Your task to perform on an android device: set the timer Image 0: 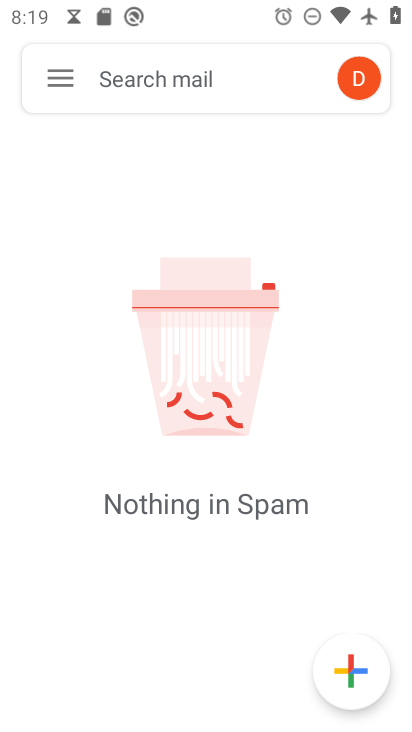
Step 0: press home button
Your task to perform on an android device: set the timer Image 1: 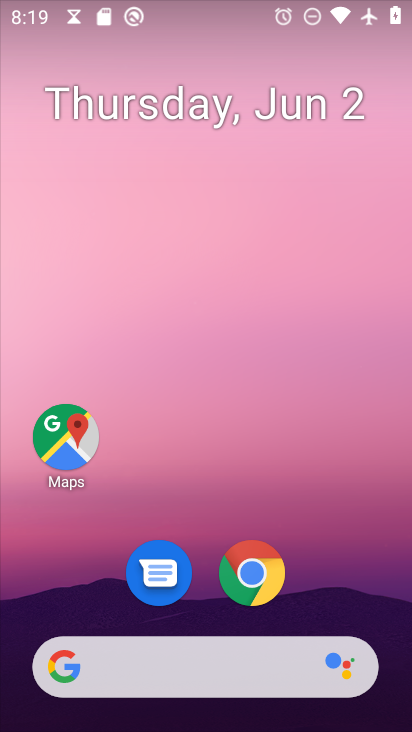
Step 1: drag from (223, 624) to (338, 47)
Your task to perform on an android device: set the timer Image 2: 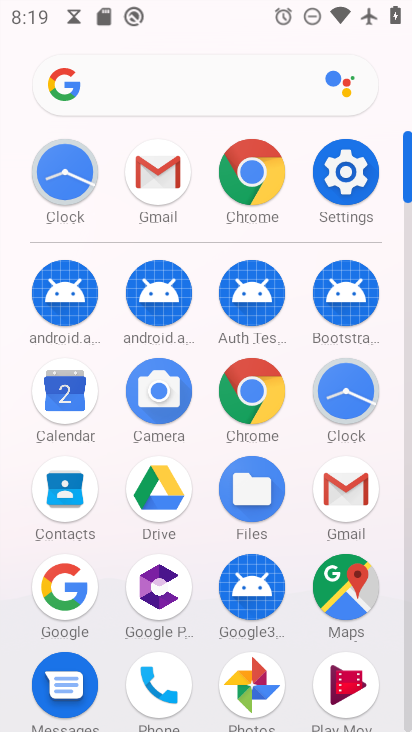
Step 2: click (341, 389)
Your task to perform on an android device: set the timer Image 3: 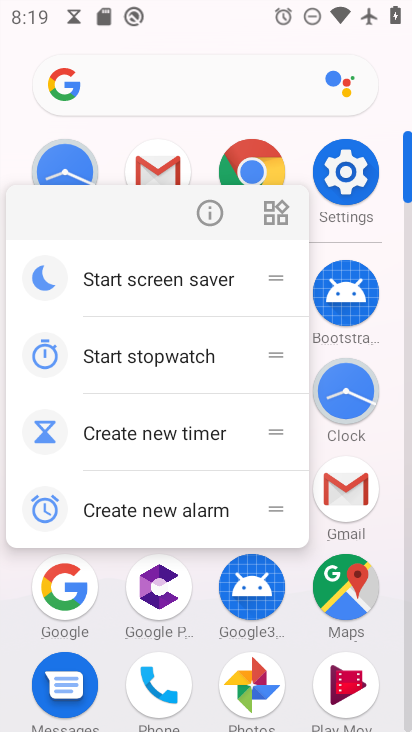
Step 3: click (348, 396)
Your task to perform on an android device: set the timer Image 4: 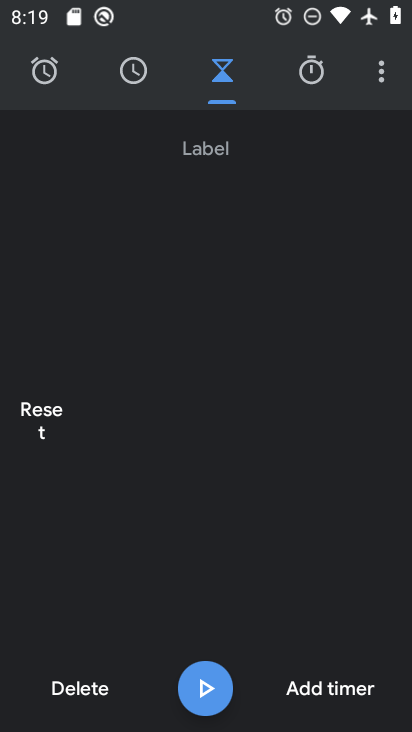
Step 4: click (75, 685)
Your task to perform on an android device: set the timer Image 5: 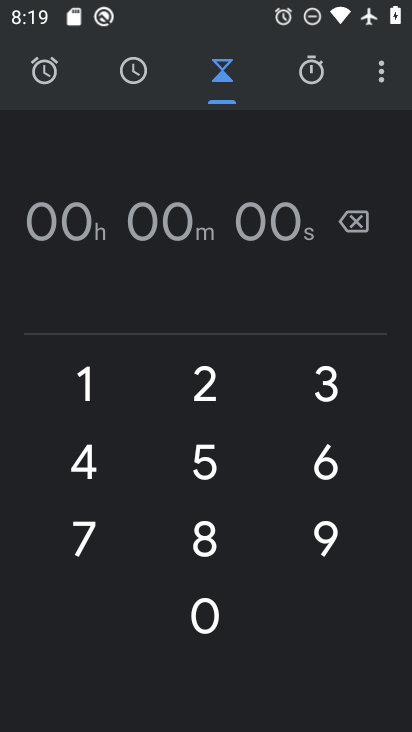
Step 5: click (84, 385)
Your task to perform on an android device: set the timer Image 6: 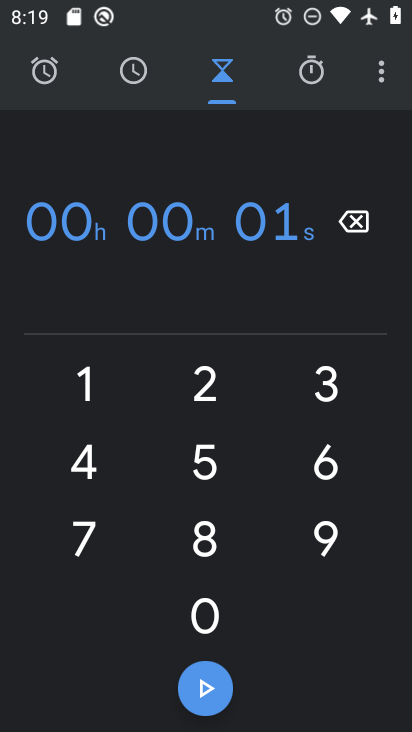
Step 6: click (215, 545)
Your task to perform on an android device: set the timer Image 7: 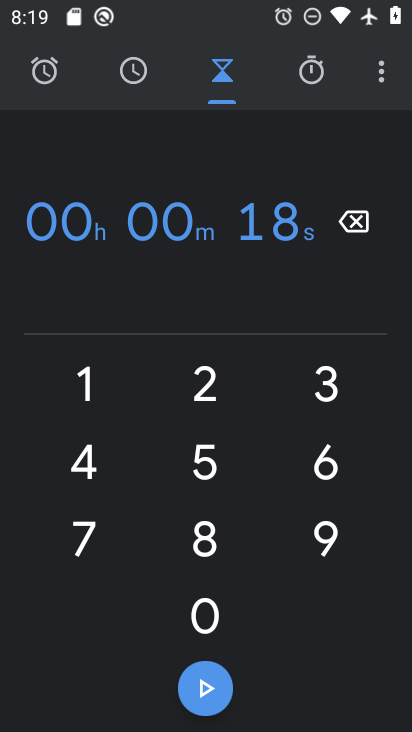
Step 7: click (196, 458)
Your task to perform on an android device: set the timer Image 8: 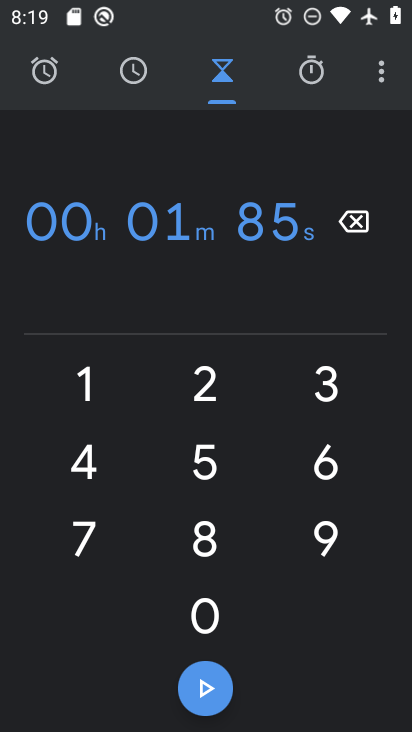
Step 8: click (203, 694)
Your task to perform on an android device: set the timer Image 9: 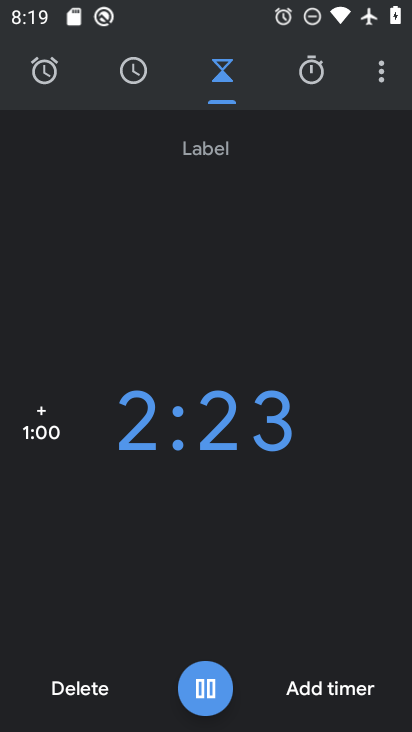
Step 9: click (203, 685)
Your task to perform on an android device: set the timer Image 10: 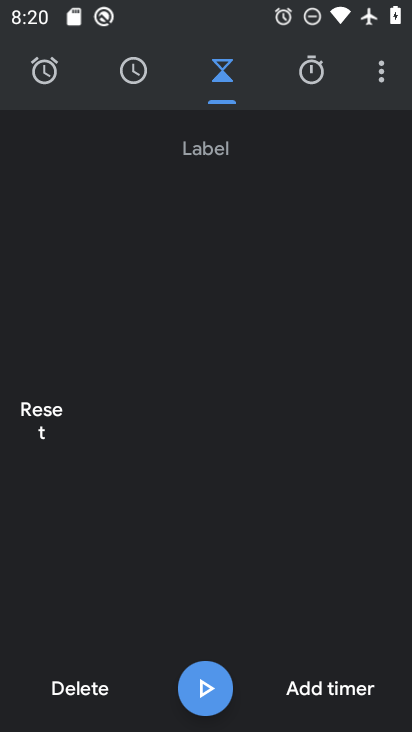
Step 10: task complete